Your task to perform on an android device: change the clock display to digital Image 0: 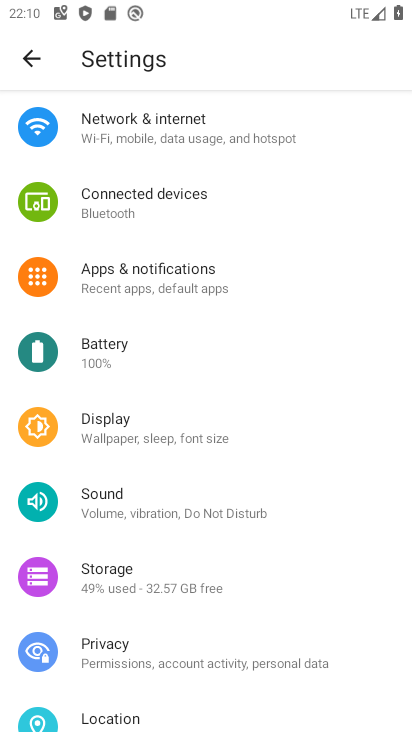
Step 0: press home button
Your task to perform on an android device: change the clock display to digital Image 1: 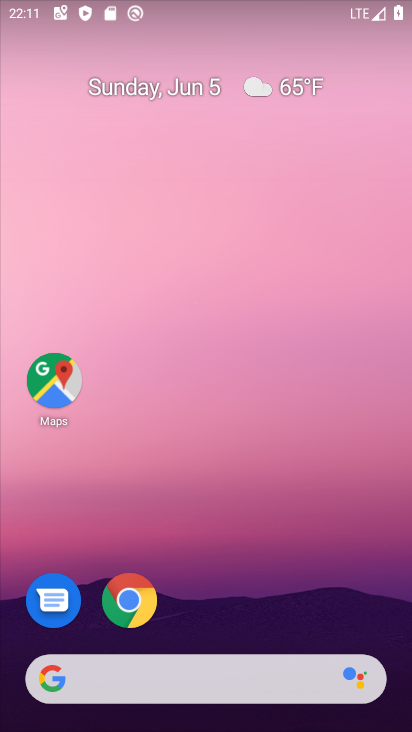
Step 1: drag from (248, 549) to (221, 87)
Your task to perform on an android device: change the clock display to digital Image 2: 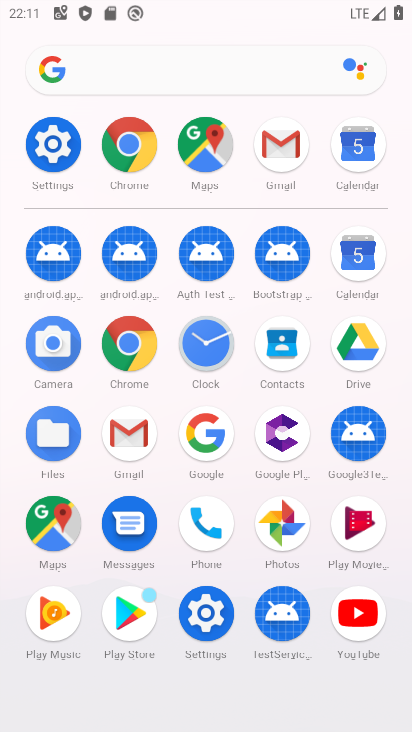
Step 2: click (198, 335)
Your task to perform on an android device: change the clock display to digital Image 3: 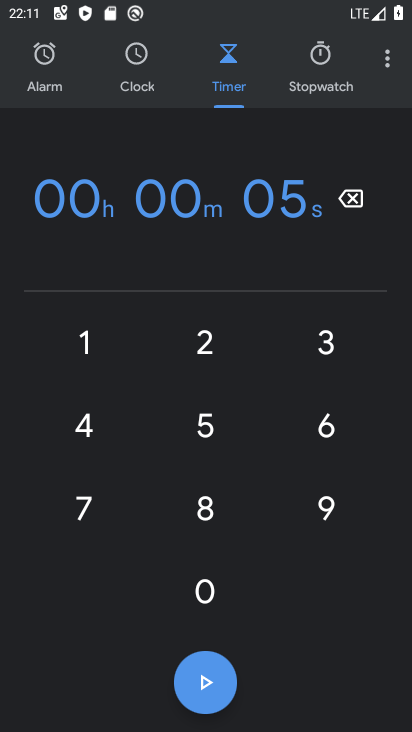
Step 3: click (388, 46)
Your task to perform on an android device: change the clock display to digital Image 4: 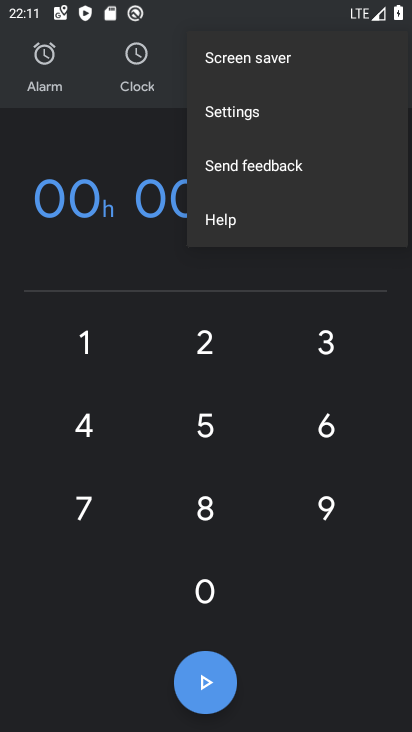
Step 4: click (245, 118)
Your task to perform on an android device: change the clock display to digital Image 5: 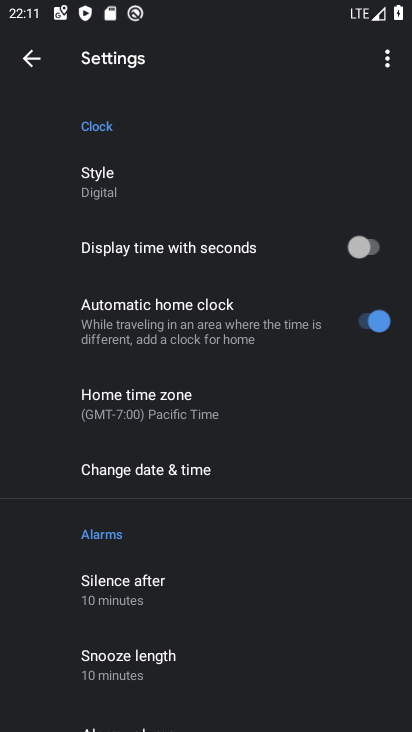
Step 5: task complete